Your task to perform on an android device: Empty the shopping cart on walmart. Add razer blade to the cart on walmart, then select checkout. Image 0: 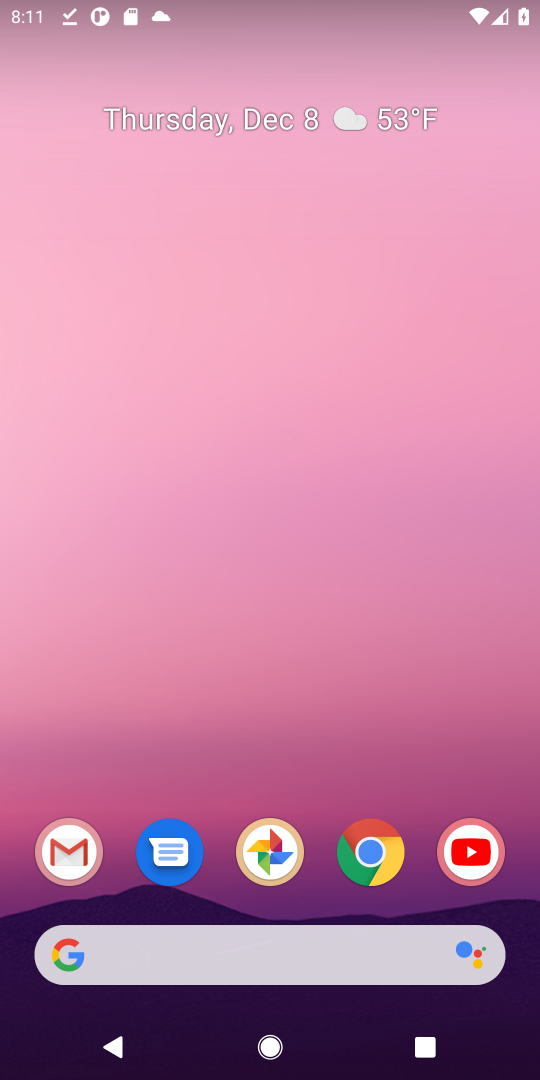
Step 0: click (173, 974)
Your task to perform on an android device: Empty the shopping cart on walmart. Add razer blade to the cart on walmart, then select checkout. Image 1: 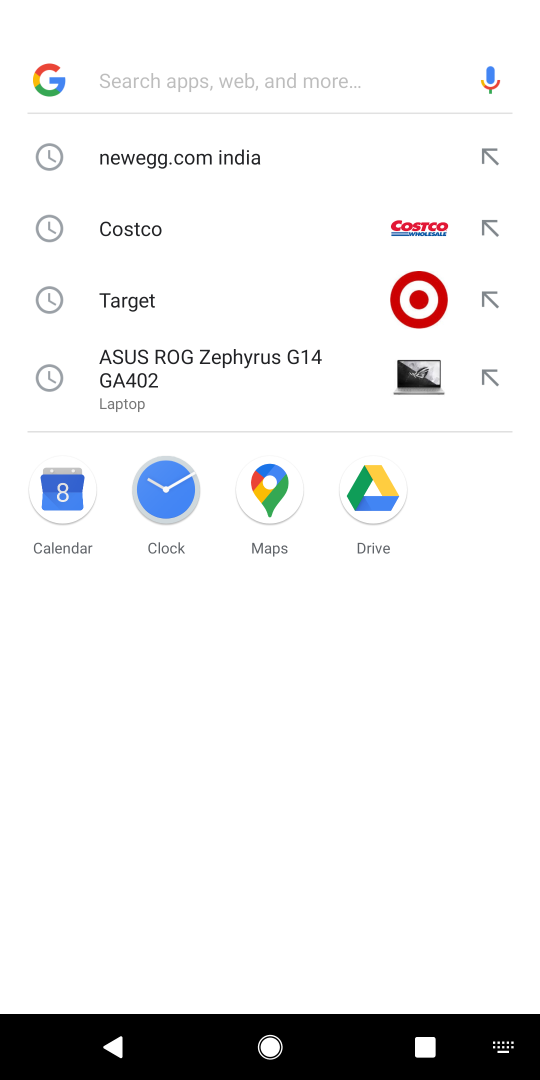
Step 1: type "walmart"
Your task to perform on an android device: Empty the shopping cart on walmart. Add razer blade to the cart on walmart, then select checkout. Image 2: 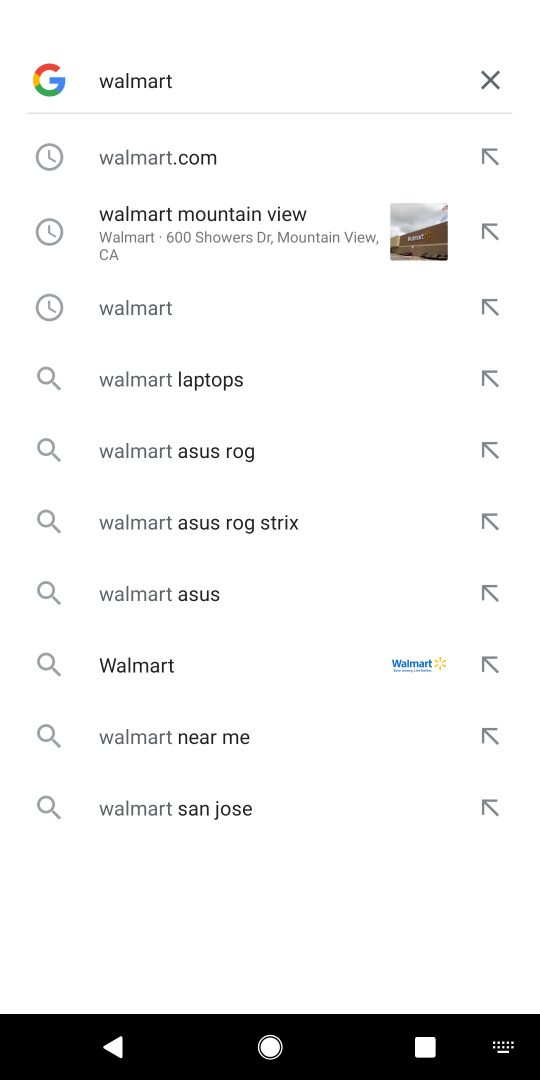
Step 2: click (196, 177)
Your task to perform on an android device: Empty the shopping cart on walmart. Add razer blade to the cart on walmart, then select checkout. Image 3: 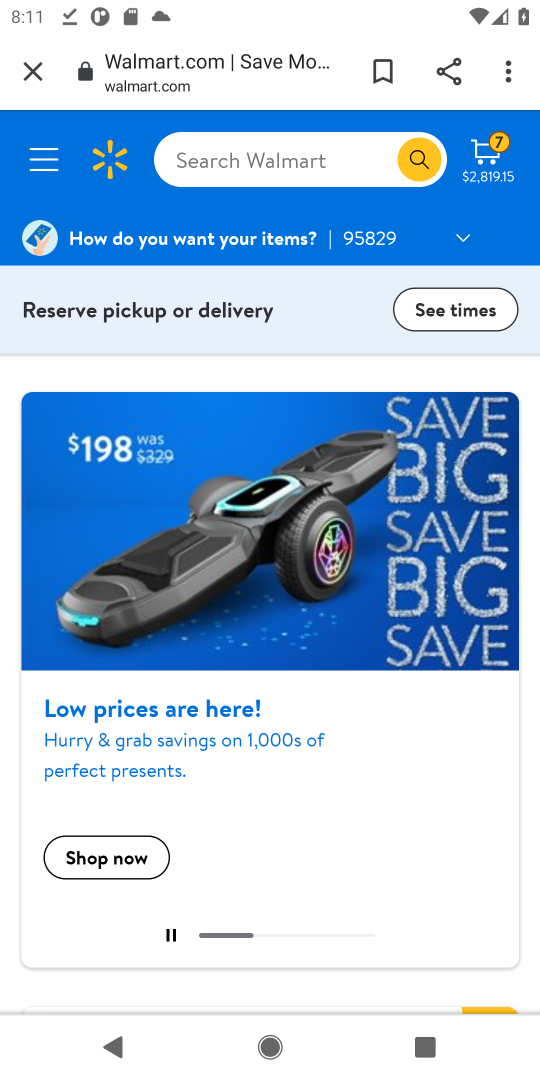
Step 3: click (334, 167)
Your task to perform on an android device: Empty the shopping cart on walmart. Add razer blade to the cart on walmart, then select checkout. Image 4: 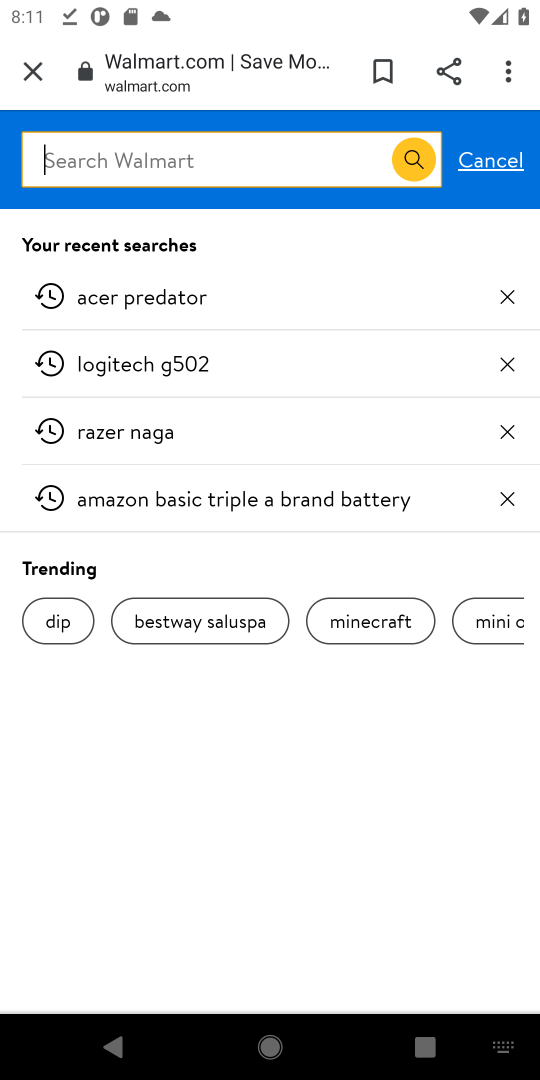
Step 4: type "razer"
Your task to perform on an android device: Empty the shopping cart on walmart. Add razer blade to the cart on walmart, then select checkout. Image 5: 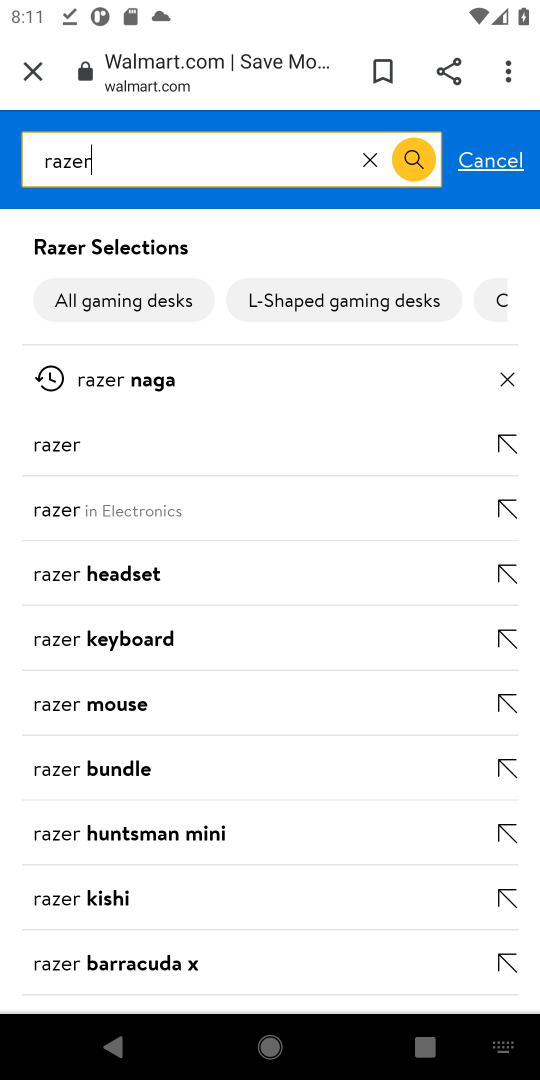
Step 5: click (148, 403)
Your task to perform on an android device: Empty the shopping cart on walmart. Add razer blade to the cart on walmart, then select checkout. Image 6: 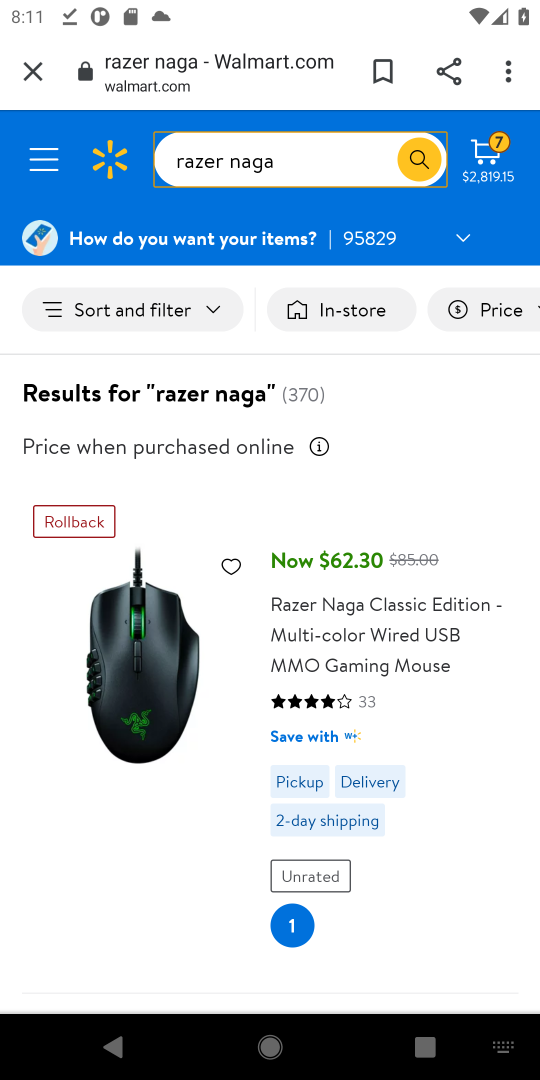
Step 6: task complete